Your task to perform on an android device: Open battery settings Image 0: 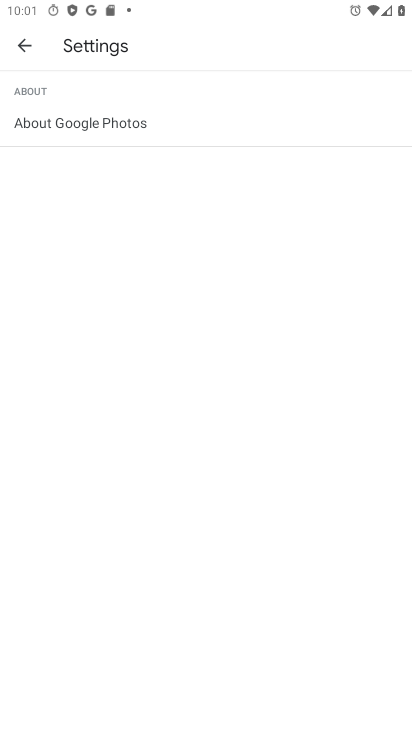
Step 0: press home button
Your task to perform on an android device: Open battery settings Image 1: 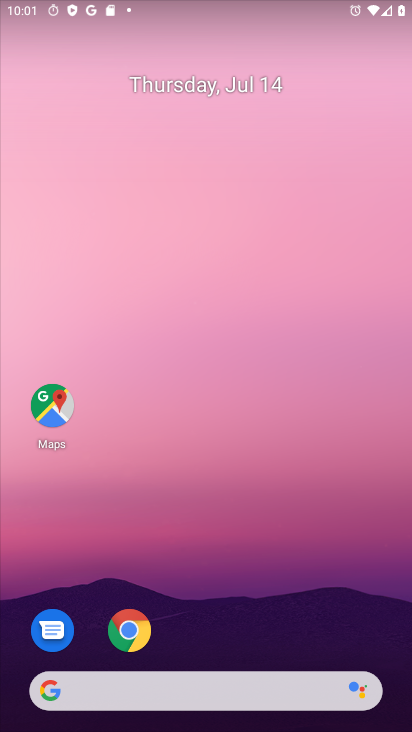
Step 1: drag from (23, 683) to (269, 114)
Your task to perform on an android device: Open battery settings Image 2: 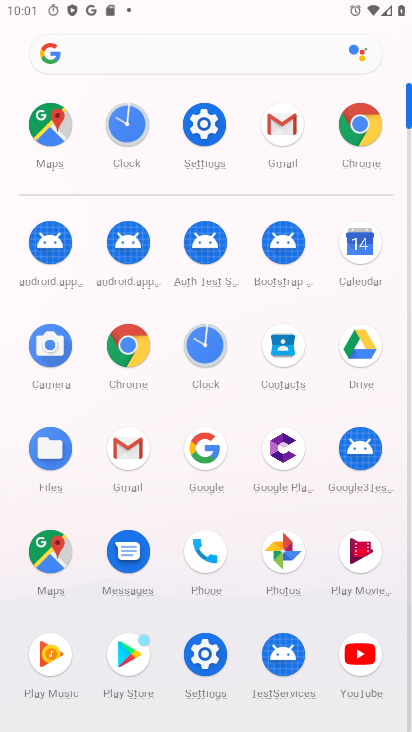
Step 2: click (220, 656)
Your task to perform on an android device: Open battery settings Image 3: 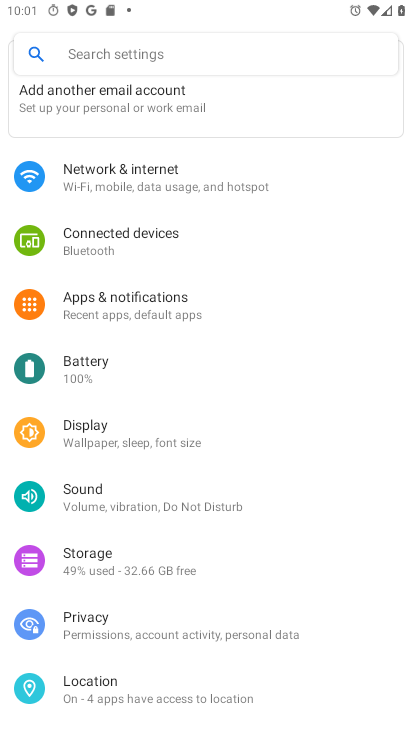
Step 3: click (147, 382)
Your task to perform on an android device: Open battery settings Image 4: 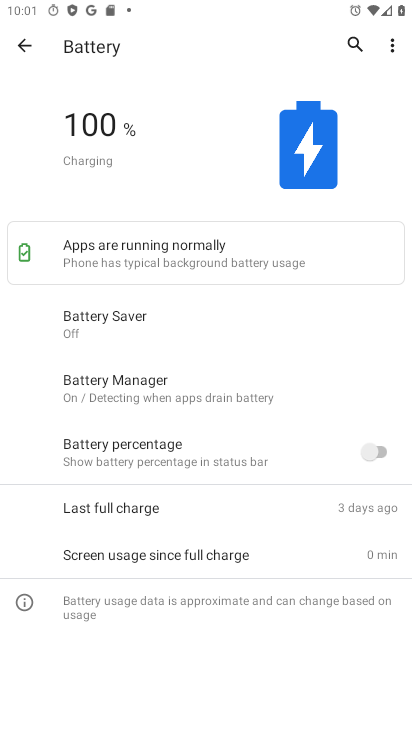
Step 4: task complete